Your task to perform on an android device: Open privacy settings Image 0: 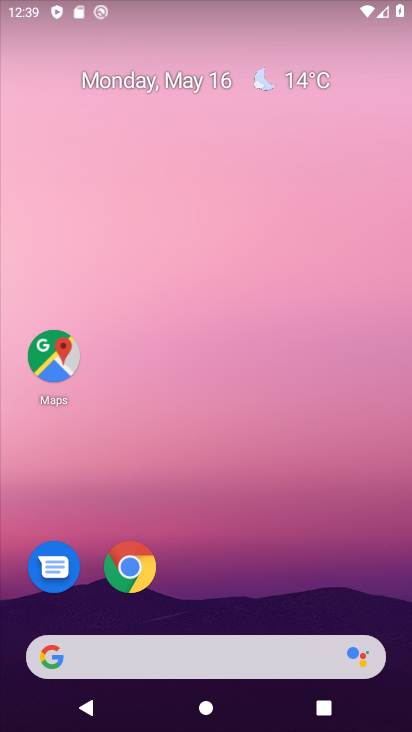
Step 0: drag from (244, 580) to (116, 9)
Your task to perform on an android device: Open privacy settings Image 1: 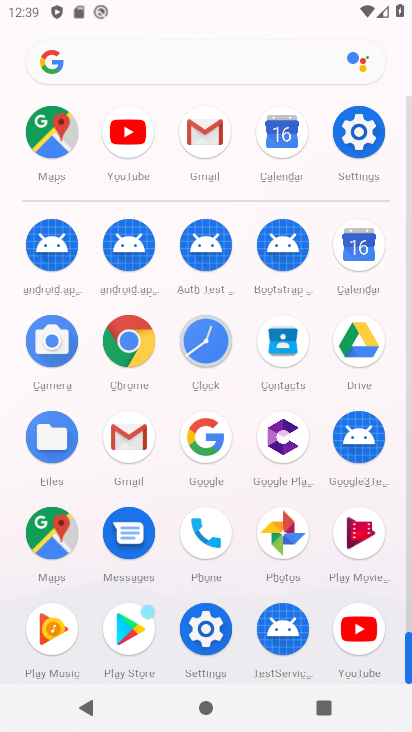
Step 1: click (358, 136)
Your task to perform on an android device: Open privacy settings Image 2: 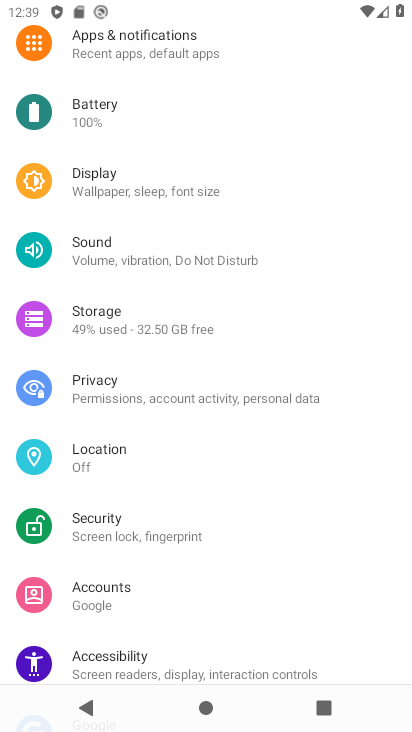
Step 2: click (105, 381)
Your task to perform on an android device: Open privacy settings Image 3: 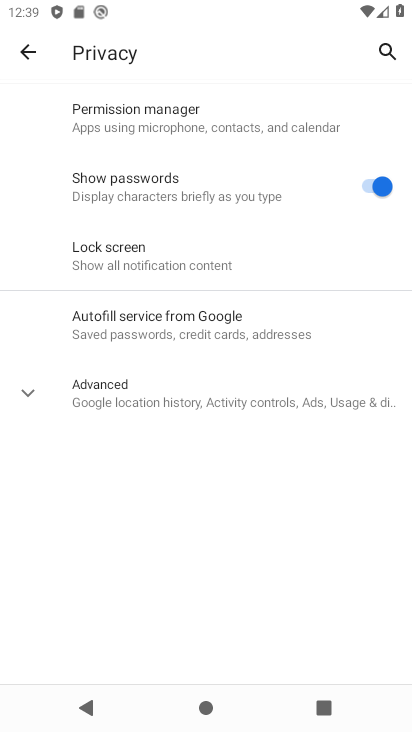
Step 3: task complete